Your task to perform on an android device: Open network settings Image 0: 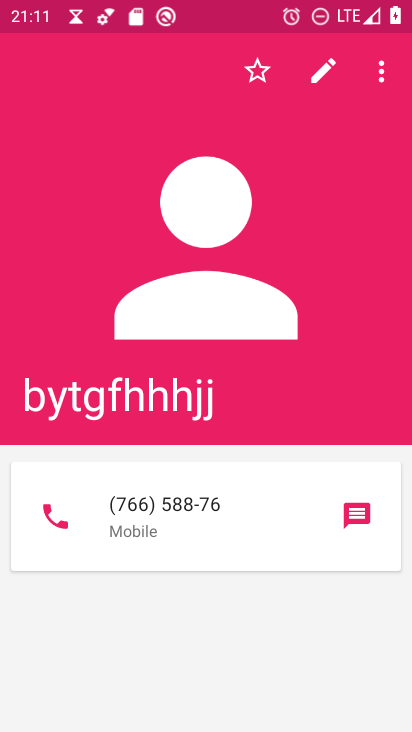
Step 0: press home button
Your task to perform on an android device: Open network settings Image 1: 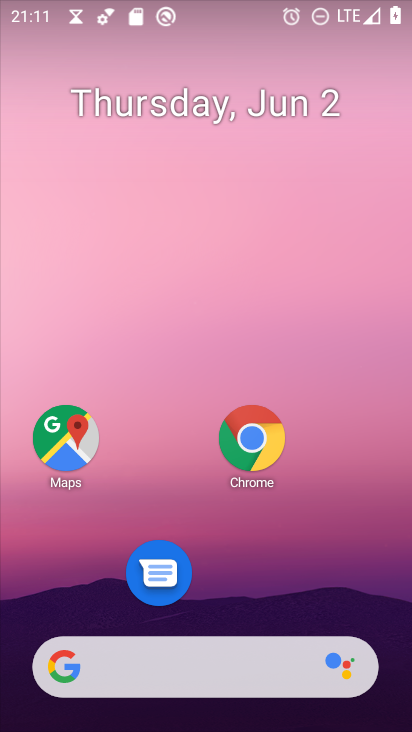
Step 1: drag from (159, 667) to (228, 181)
Your task to perform on an android device: Open network settings Image 2: 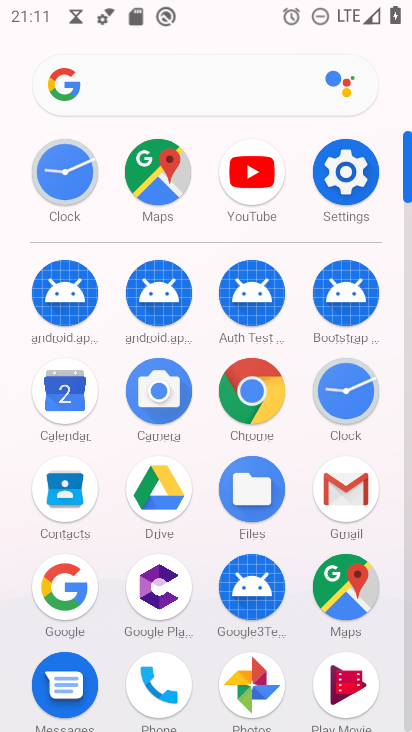
Step 2: click (339, 180)
Your task to perform on an android device: Open network settings Image 3: 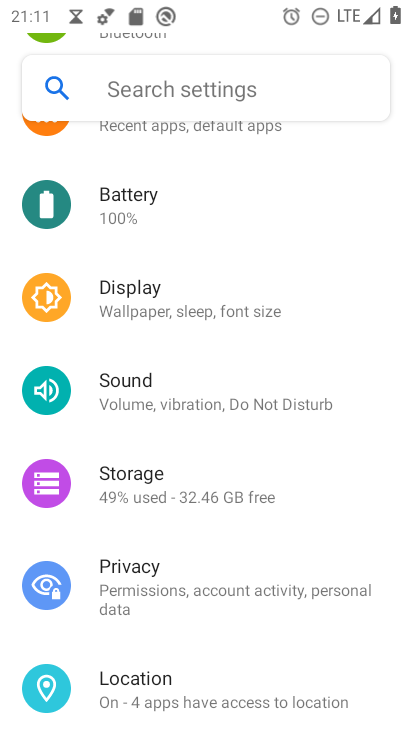
Step 3: drag from (318, 211) to (323, 633)
Your task to perform on an android device: Open network settings Image 4: 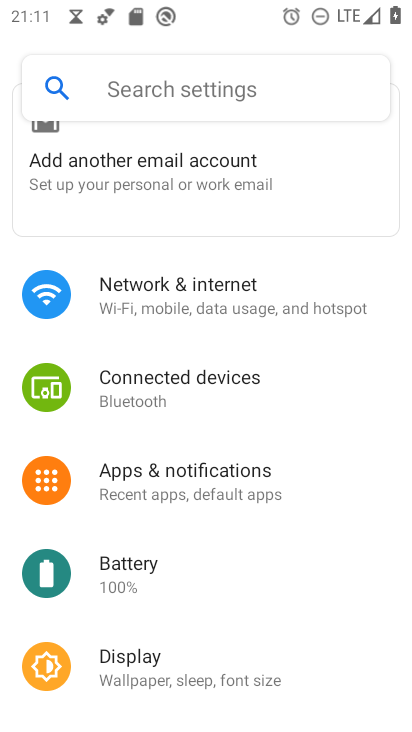
Step 4: click (196, 308)
Your task to perform on an android device: Open network settings Image 5: 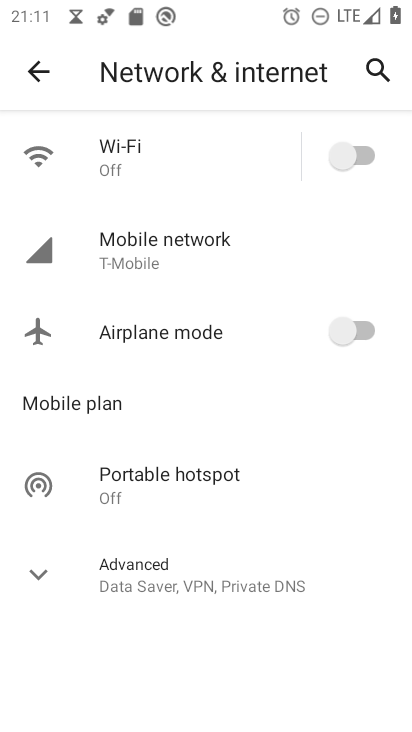
Step 5: task complete